Your task to perform on an android device: Go to battery settings Image 0: 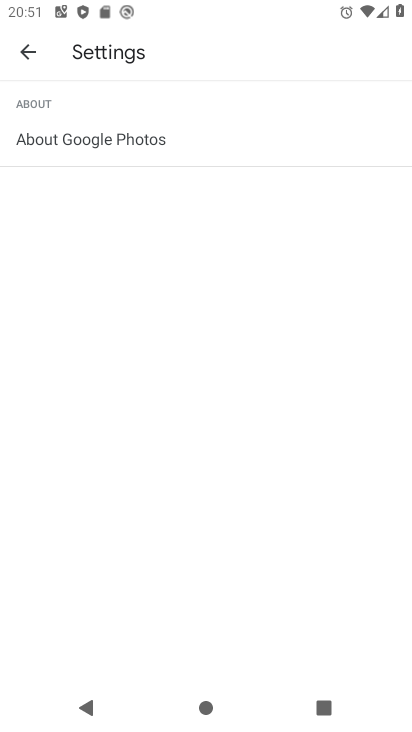
Step 0: press home button
Your task to perform on an android device: Go to battery settings Image 1: 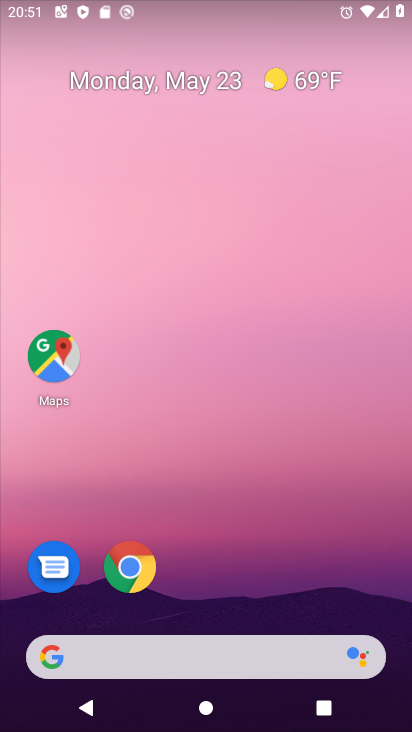
Step 1: drag from (250, 591) to (273, 19)
Your task to perform on an android device: Go to battery settings Image 2: 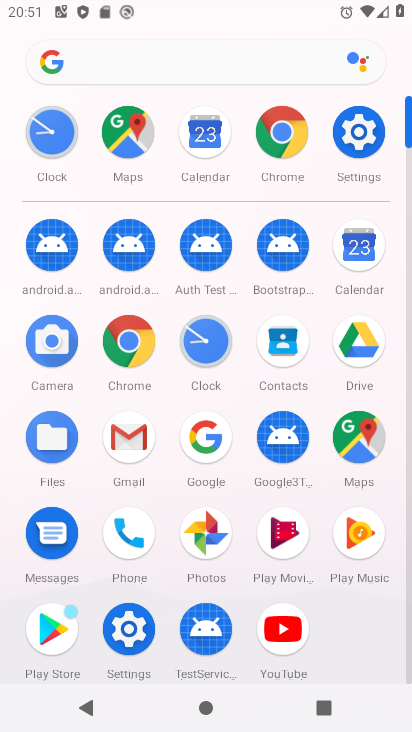
Step 2: click (370, 139)
Your task to perform on an android device: Go to battery settings Image 3: 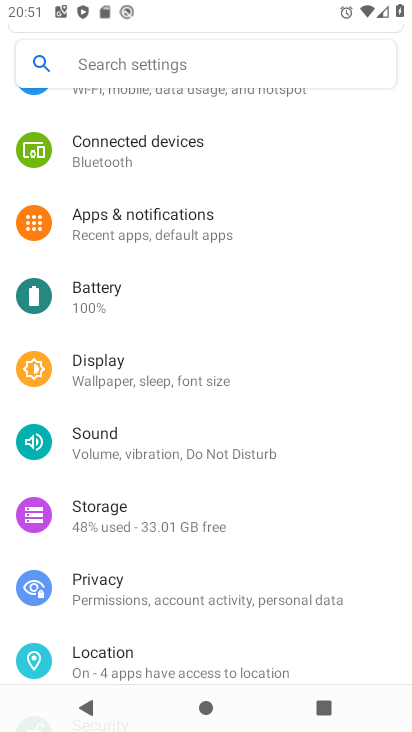
Step 3: click (127, 294)
Your task to perform on an android device: Go to battery settings Image 4: 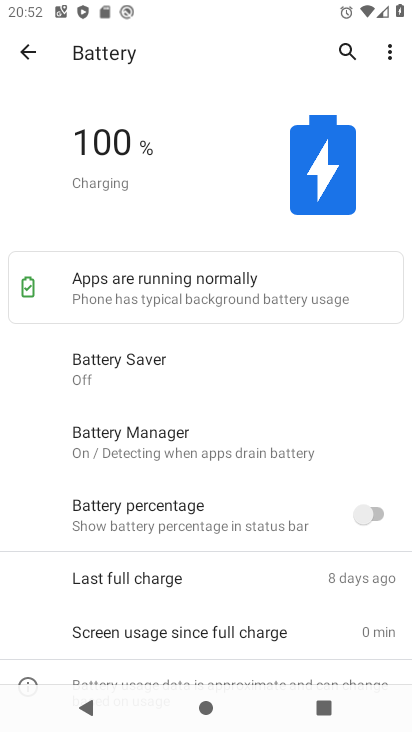
Step 4: task complete